Your task to perform on an android device: delete location history Image 0: 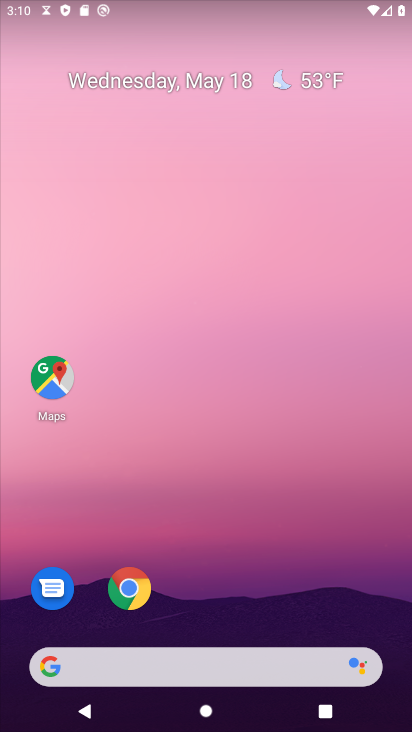
Step 0: press home button
Your task to perform on an android device: delete location history Image 1: 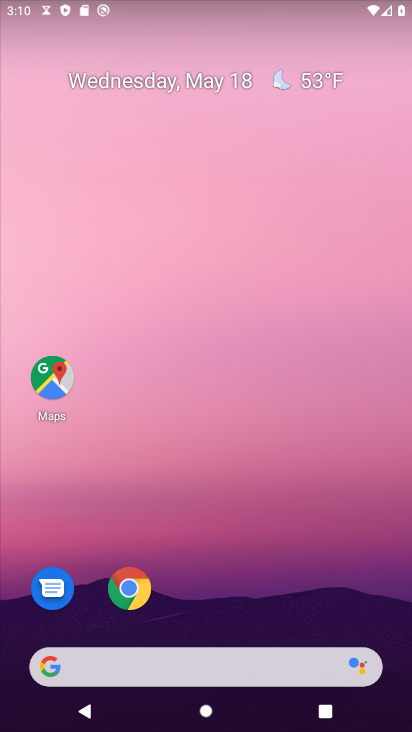
Step 1: click (55, 403)
Your task to perform on an android device: delete location history Image 2: 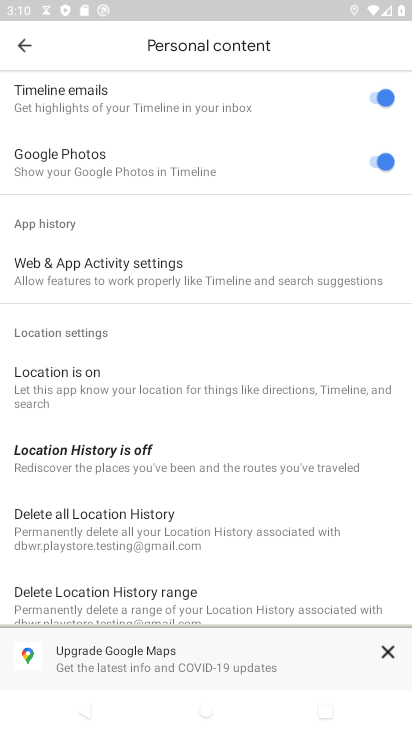
Step 2: click (100, 532)
Your task to perform on an android device: delete location history Image 3: 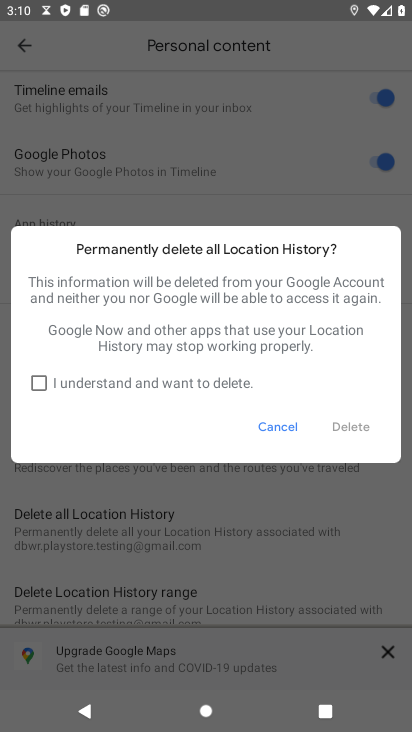
Step 3: click (172, 382)
Your task to perform on an android device: delete location history Image 4: 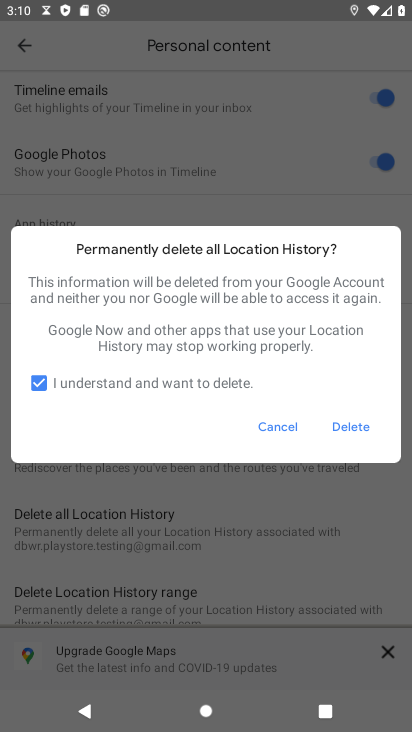
Step 4: click (331, 429)
Your task to perform on an android device: delete location history Image 5: 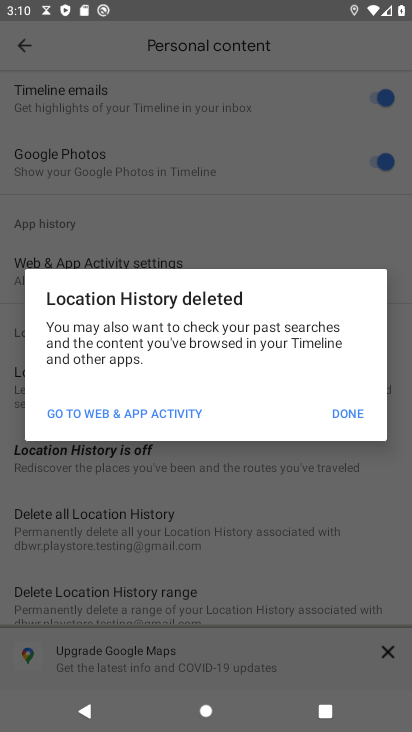
Step 5: click (346, 418)
Your task to perform on an android device: delete location history Image 6: 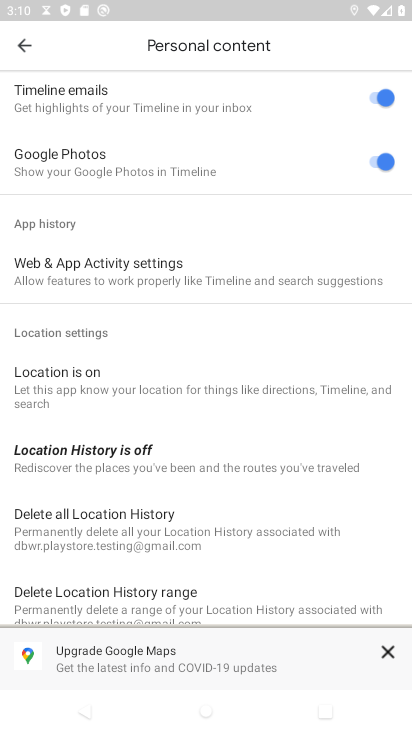
Step 6: task complete